Your task to perform on an android device: Show me productivity apps on the Play Store Image 0: 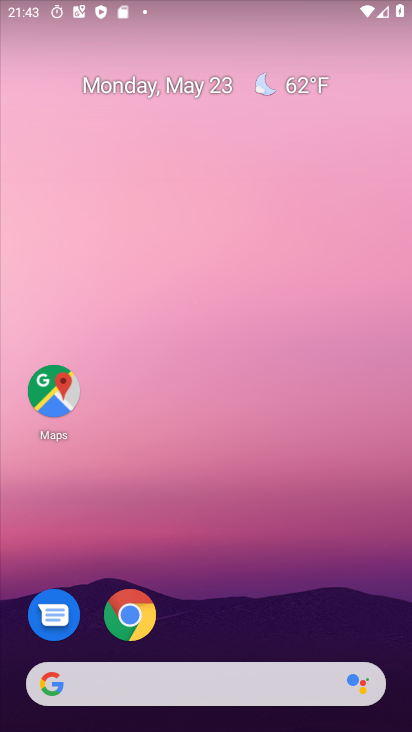
Step 0: drag from (244, 592) to (301, 34)
Your task to perform on an android device: Show me productivity apps on the Play Store Image 1: 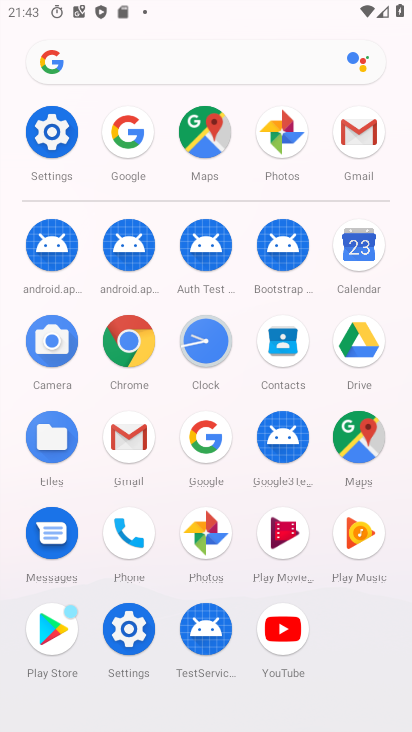
Step 1: click (41, 633)
Your task to perform on an android device: Show me productivity apps on the Play Store Image 2: 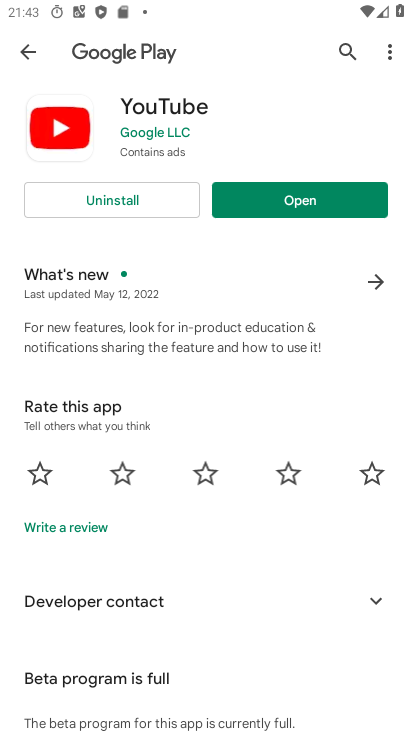
Step 2: press back button
Your task to perform on an android device: Show me productivity apps on the Play Store Image 3: 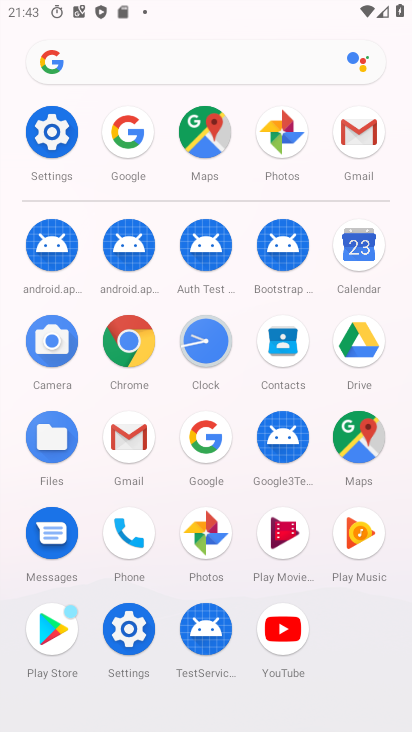
Step 3: click (67, 631)
Your task to perform on an android device: Show me productivity apps on the Play Store Image 4: 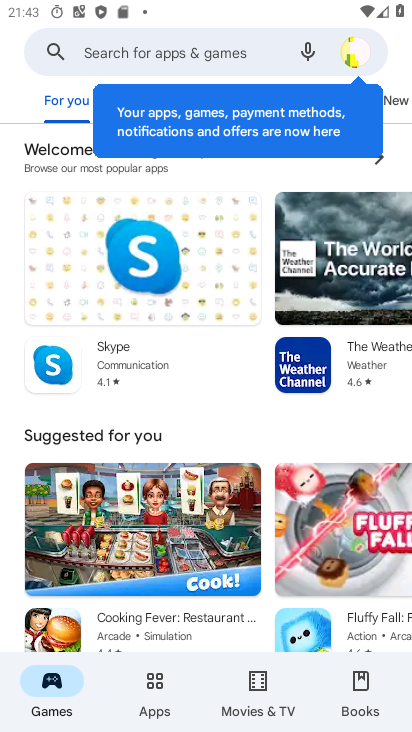
Step 4: click (164, 694)
Your task to perform on an android device: Show me productivity apps on the Play Store Image 5: 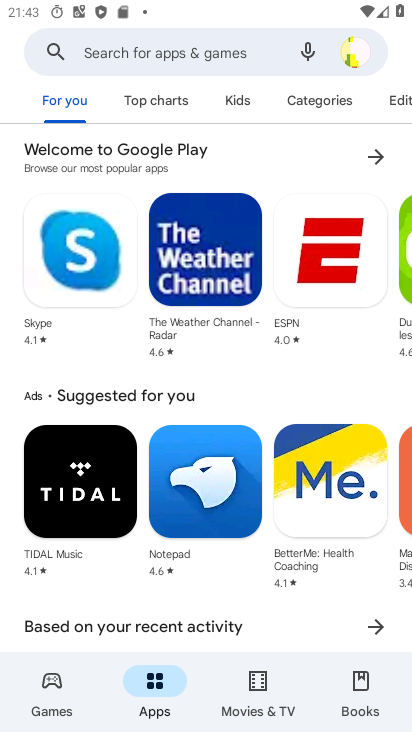
Step 5: click (340, 107)
Your task to perform on an android device: Show me productivity apps on the Play Store Image 6: 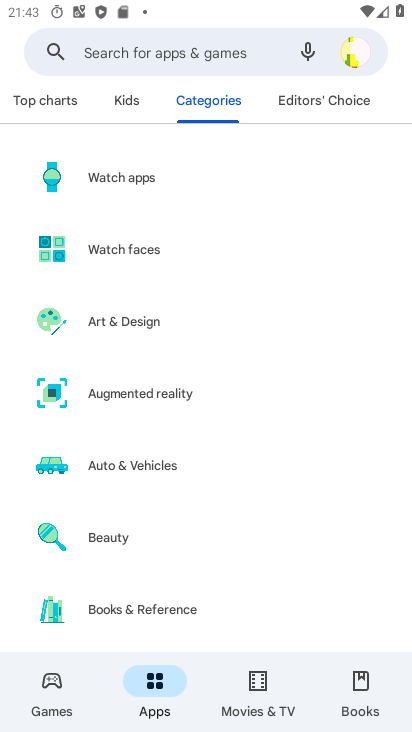
Step 6: drag from (259, 595) to (307, 0)
Your task to perform on an android device: Show me productivity apps on the Play Store Image 7: 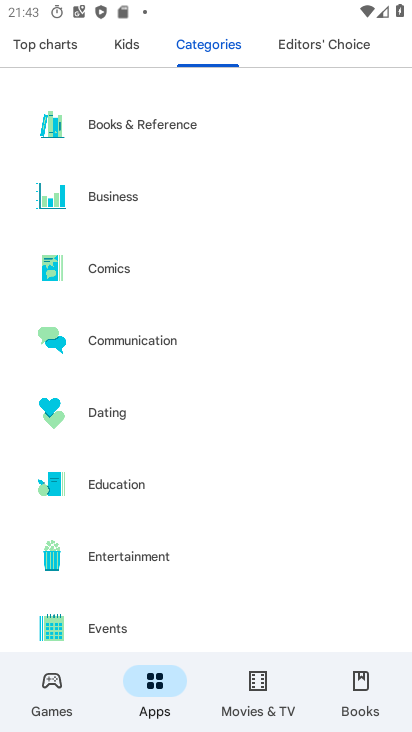
Step 7: drag from (235, 597) to (255, 130)
Your task to perform on an android device: Show me productivity apps on the Play Store Image 8: 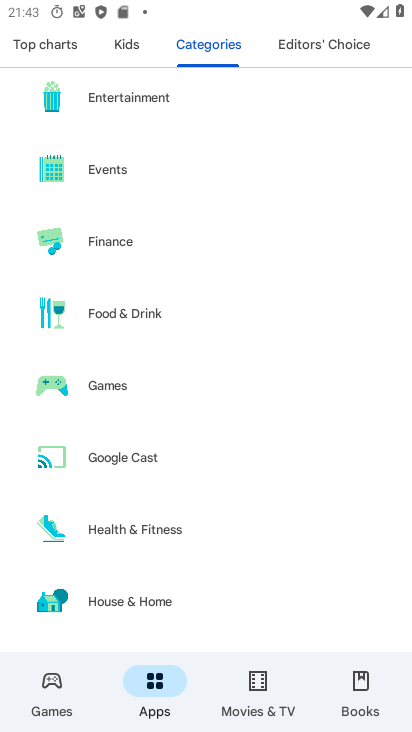
Step 8: drag from (253, 564) to (324, 52)
Your task to perform on an android device: Show me productivity apps on the Play Store Image 9: 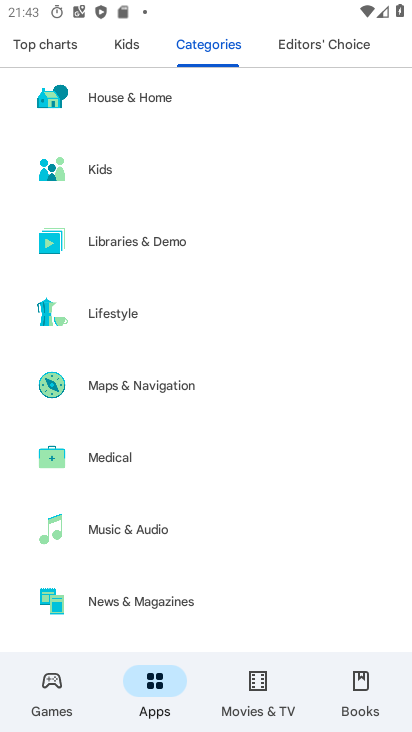
Step 9: drag from (219, 598) to (276, 79)
Your task to perform on an android device: Show me productivity apps on the Play Store Image 10: 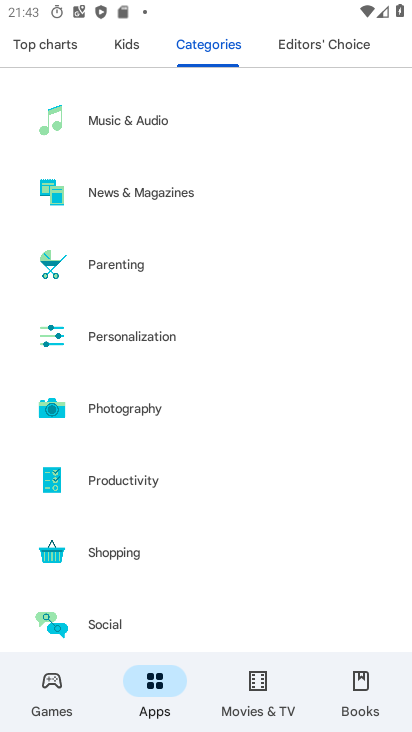
Step 10: click (175, 478)
Your task to perform on an android device: Show me productivity apps on the Play Store Image 11: 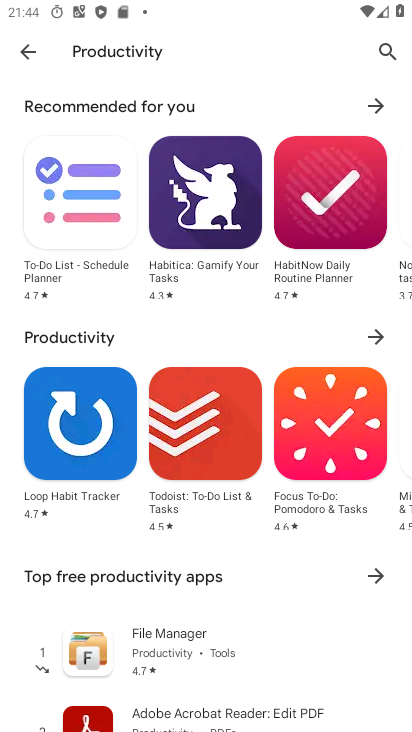
Step 11: click (348, 338)
Your task to perform on an android device: Show me productivity apps on the Play Store Image 12: 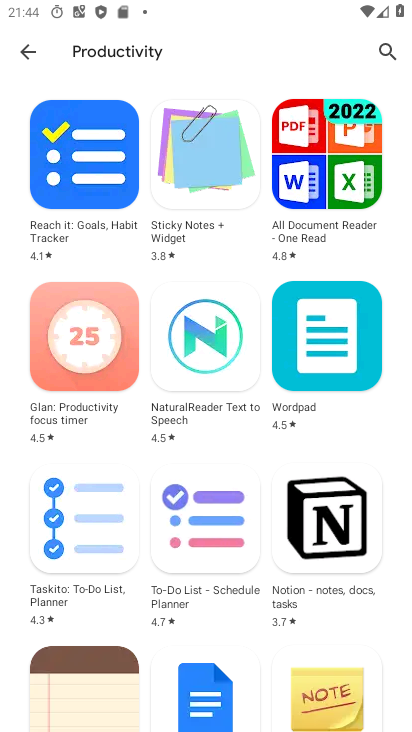
Step 12: task complete